Your task to perform on an android device: Add bose soundlink mini to the cart on bestbuy, then select checkout. Image 0: 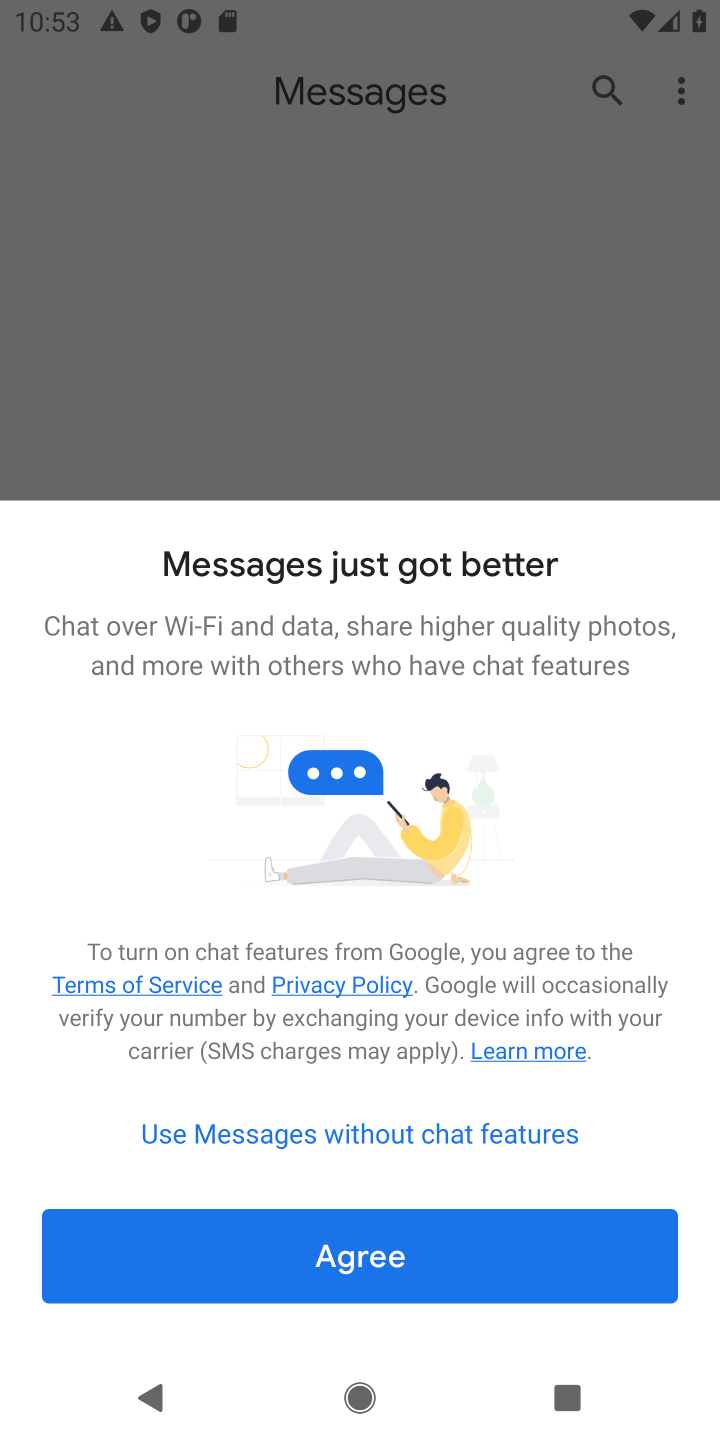
Step 0: press home button
Your task to perform on an android device: Add bose soundlink mini to the cart on bestbuy, then select checkout. Image 1: 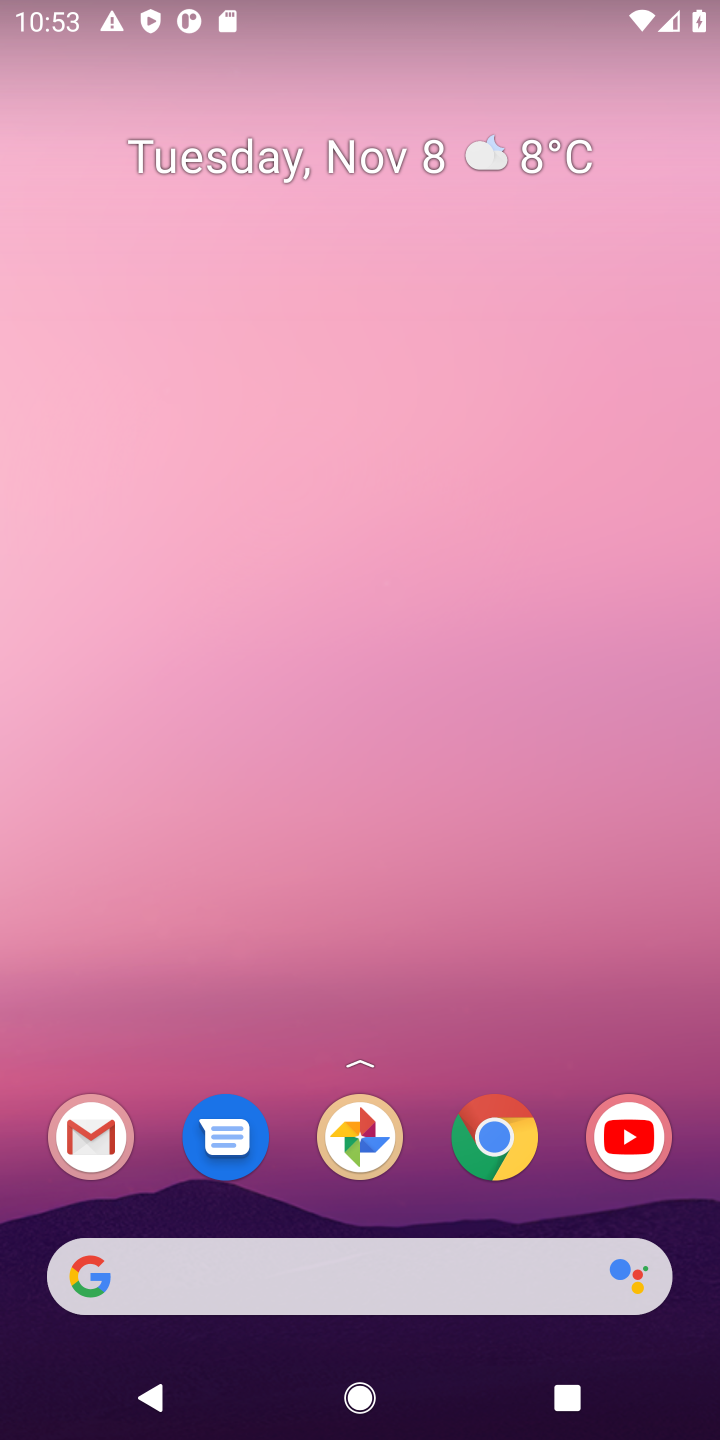
Step 1: click (498, 1123)
Your task to perform on an android device: Add bose soundlink mini to the cart on bestbuy, then select checkout. Image 2: 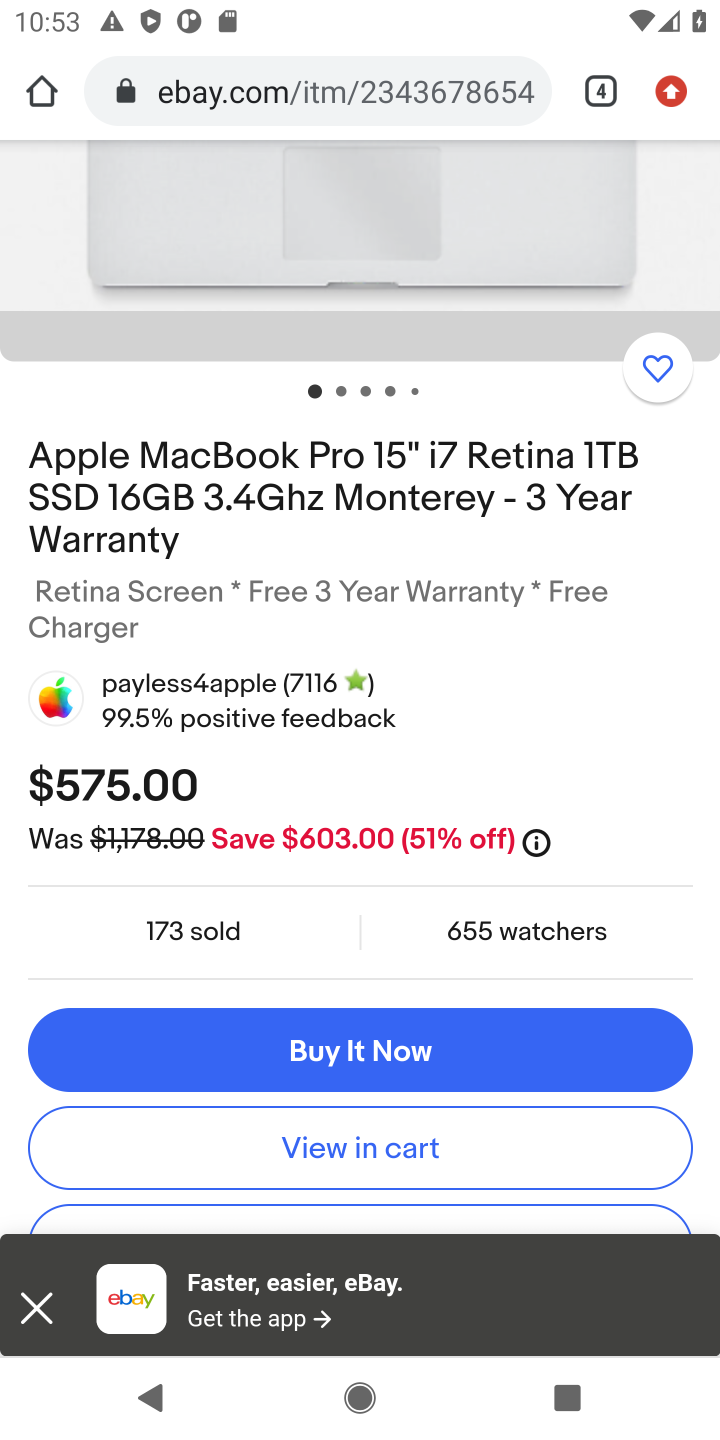
Step 2: click (600, 87)
Your task to perform on an android device: Add bose soundlink mini to the cart on bestbuy, then select checkout. Image 3: 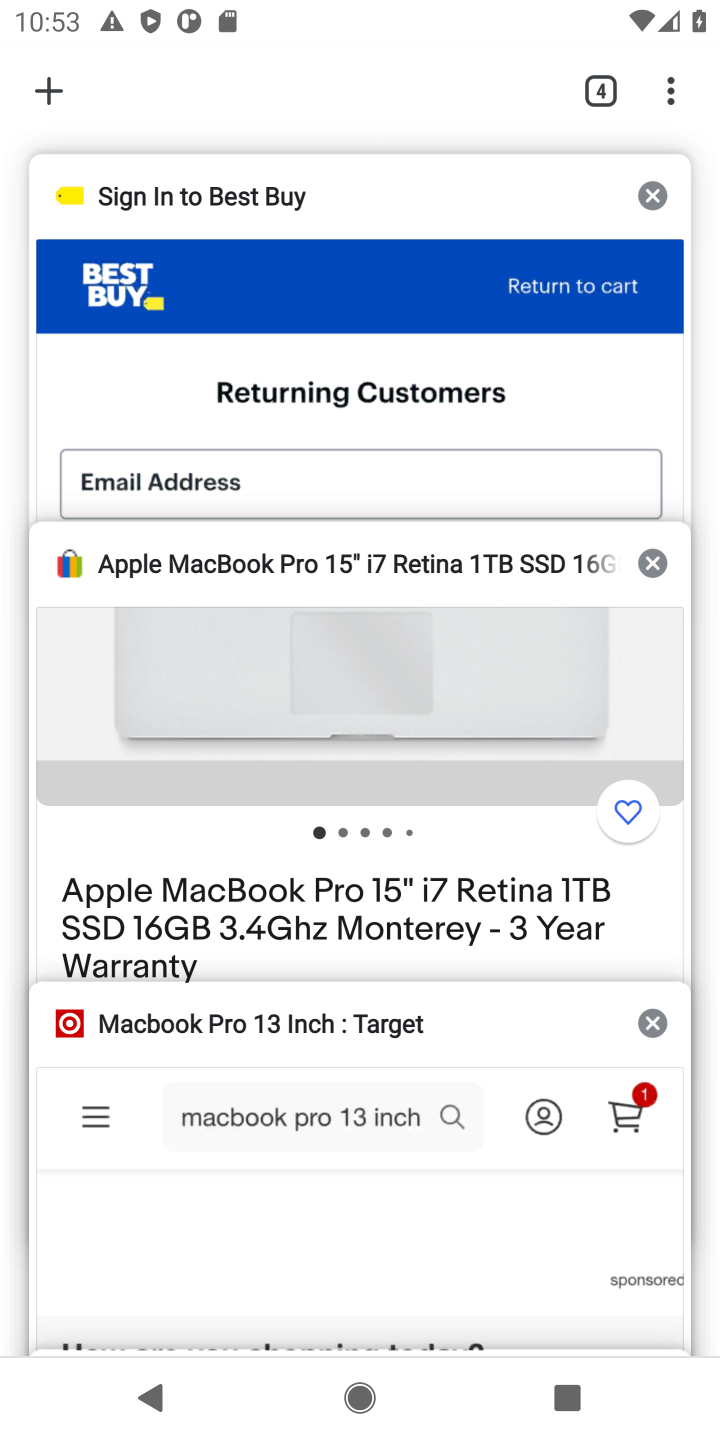
Step 3: click (224, 312)
Your task to perform on an android device: Add bose soundlink mini to the cart on bestbuy, then select checkout. Image 4: 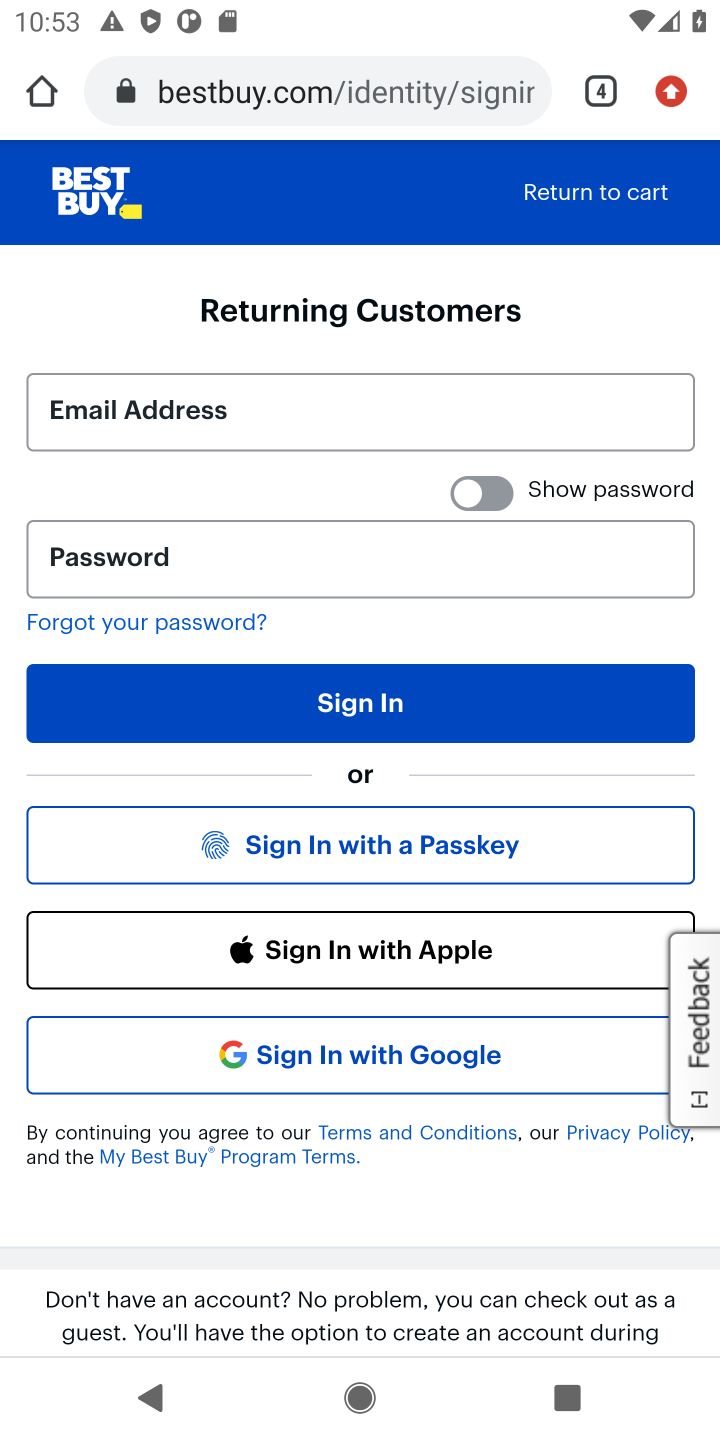
Step 4: click (550, 184)
Your task to perform on an android device: Add bose soundlink mini to the cart on bestbuy, then select checkout. Image 5: 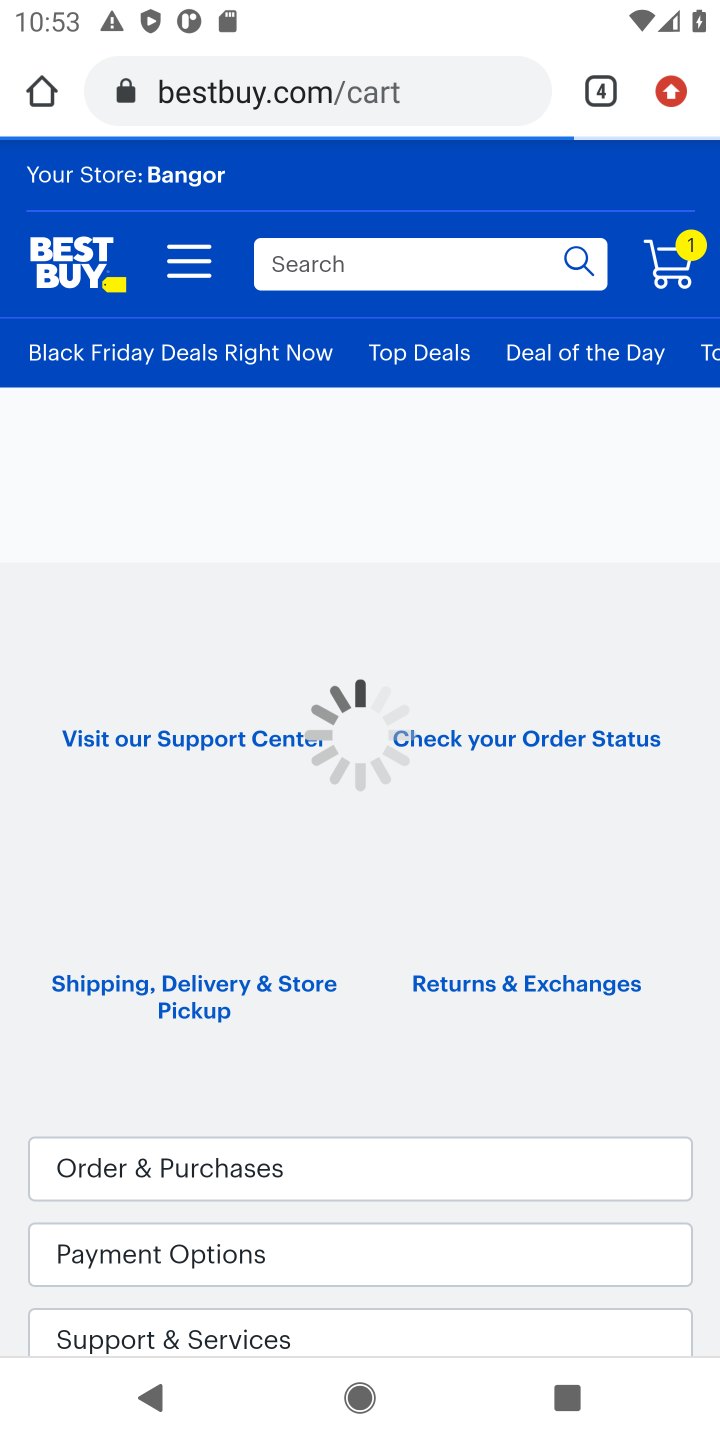
Step 5: click (358, 264)
Your task to perform on an android device: Add bose soundlink mini to the cart on bestbuy, then select checkout. Image 6: 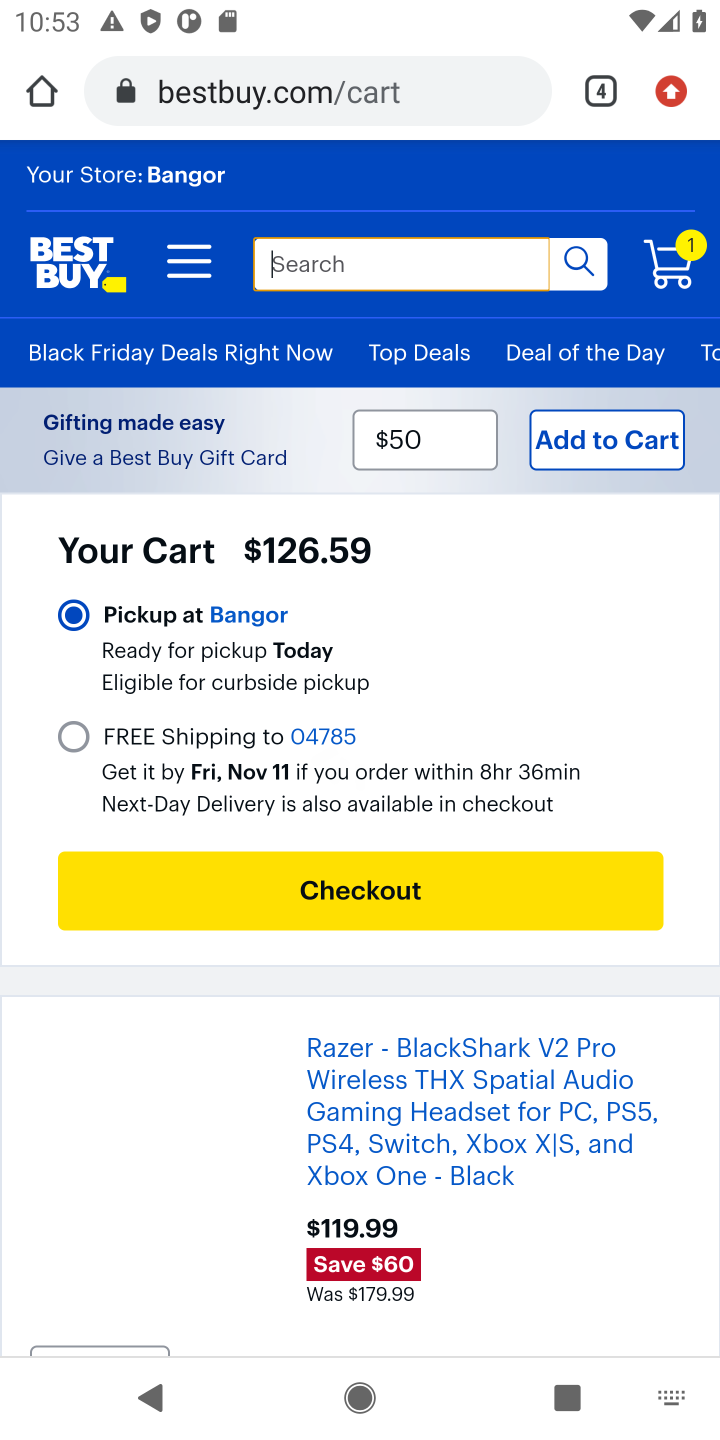
Step 6: type "bose soundlink mini "
Your task to perform on an android device: Add bose soundlink mini to the cart on bestbuy, then select checkout. Image 7: 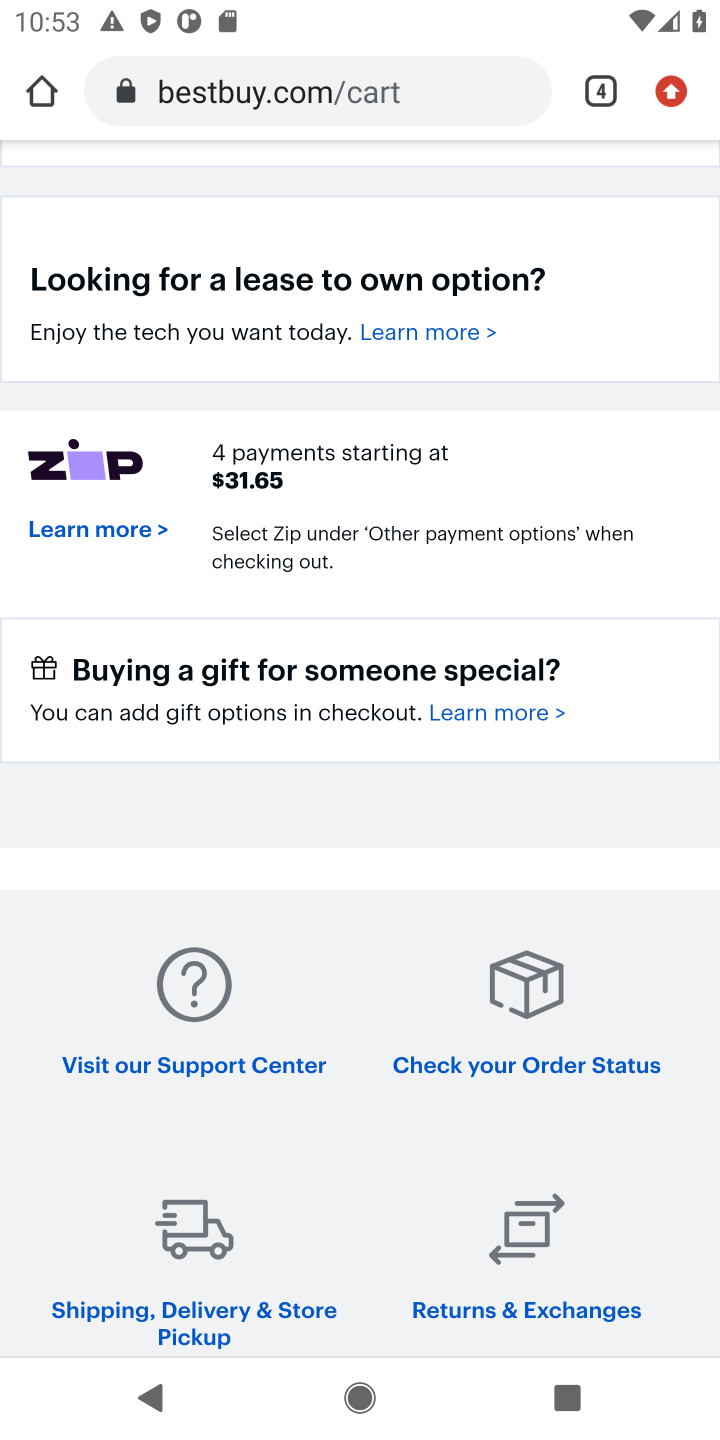
Step 7: click (413, 199)
Your task to perform on an android device: Add bose soundlink mini to the cart on bestbuy, then select checkout. Image 8: 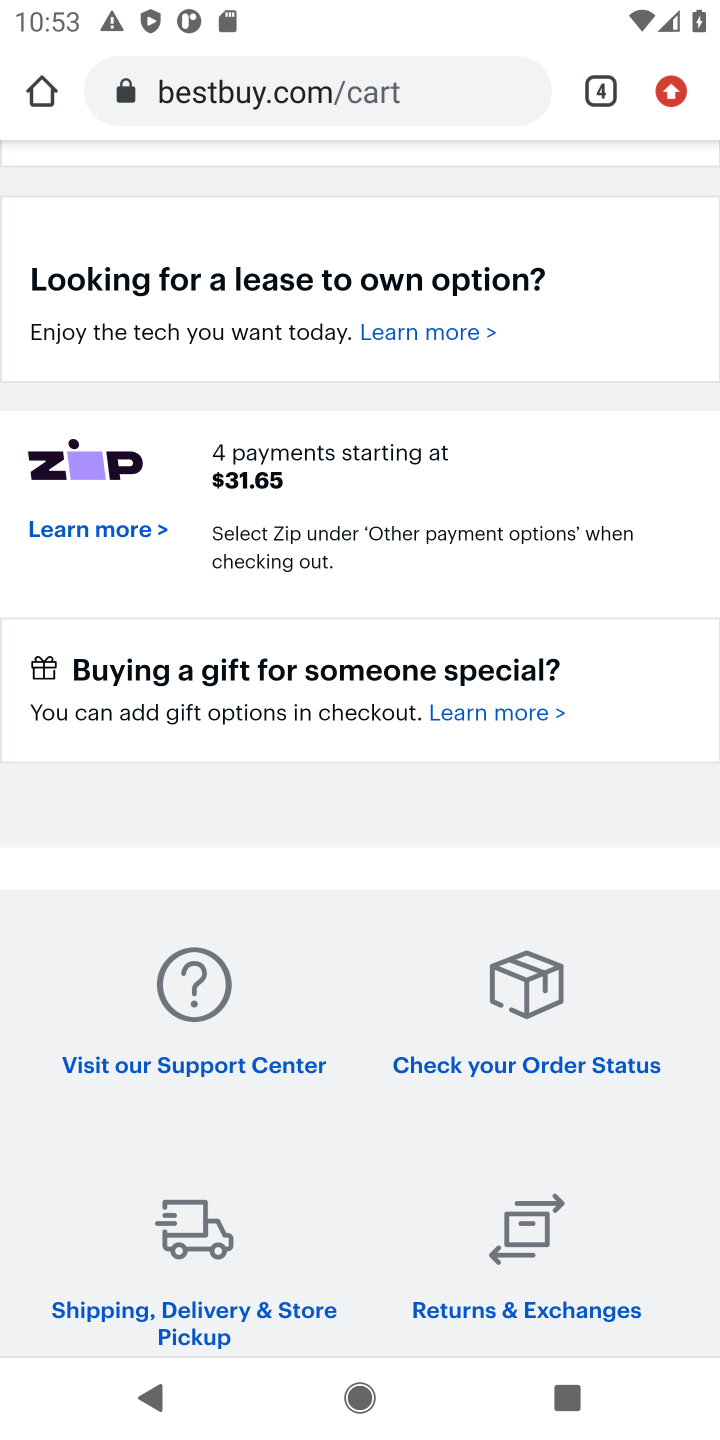
Step 8: drag from (458, 208) to (410, 919)
Your task to perform on an android device: Add bose soundlink mini to the cart on bestbuy, then select checkout. Image 9: 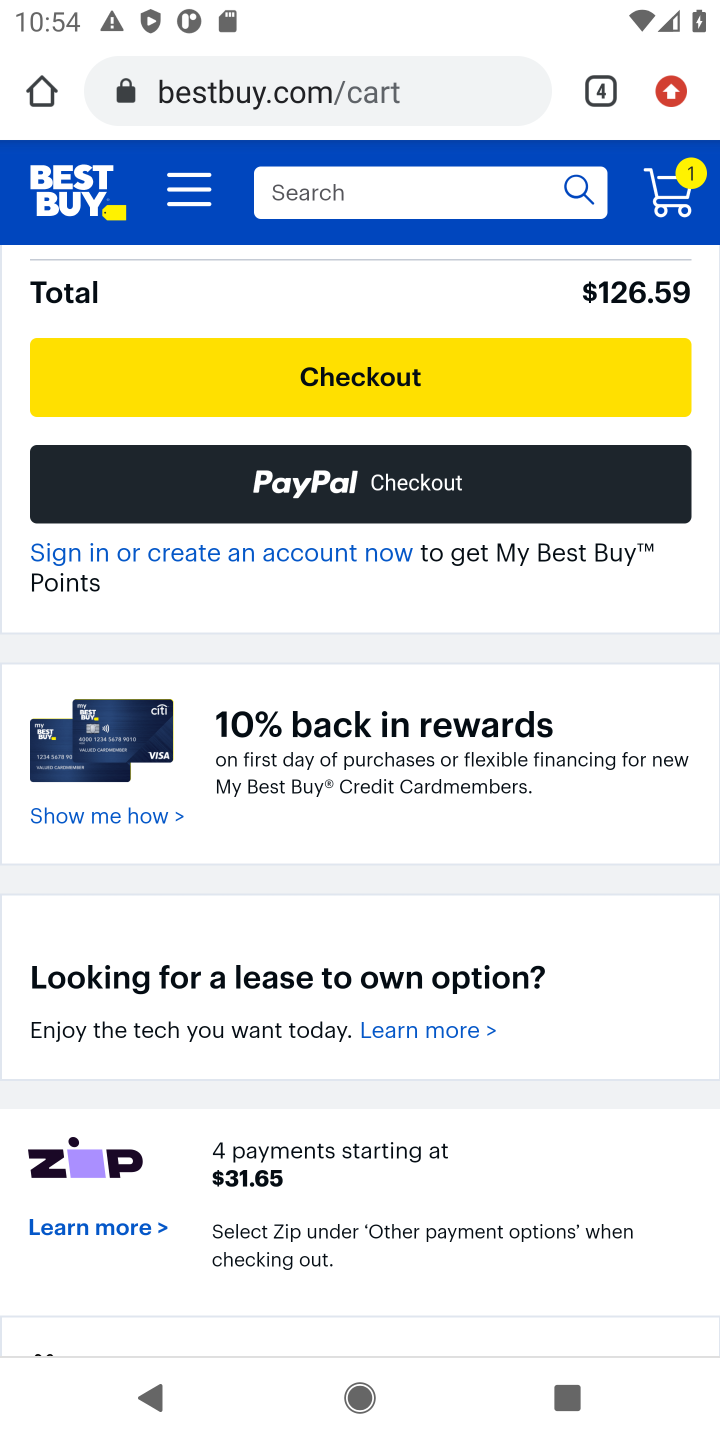
Step 9: click (305, 203)
Your task to perform on an android device: Add bose soundlink mini to the cart on bestbuy, then select checkout. Image 10: 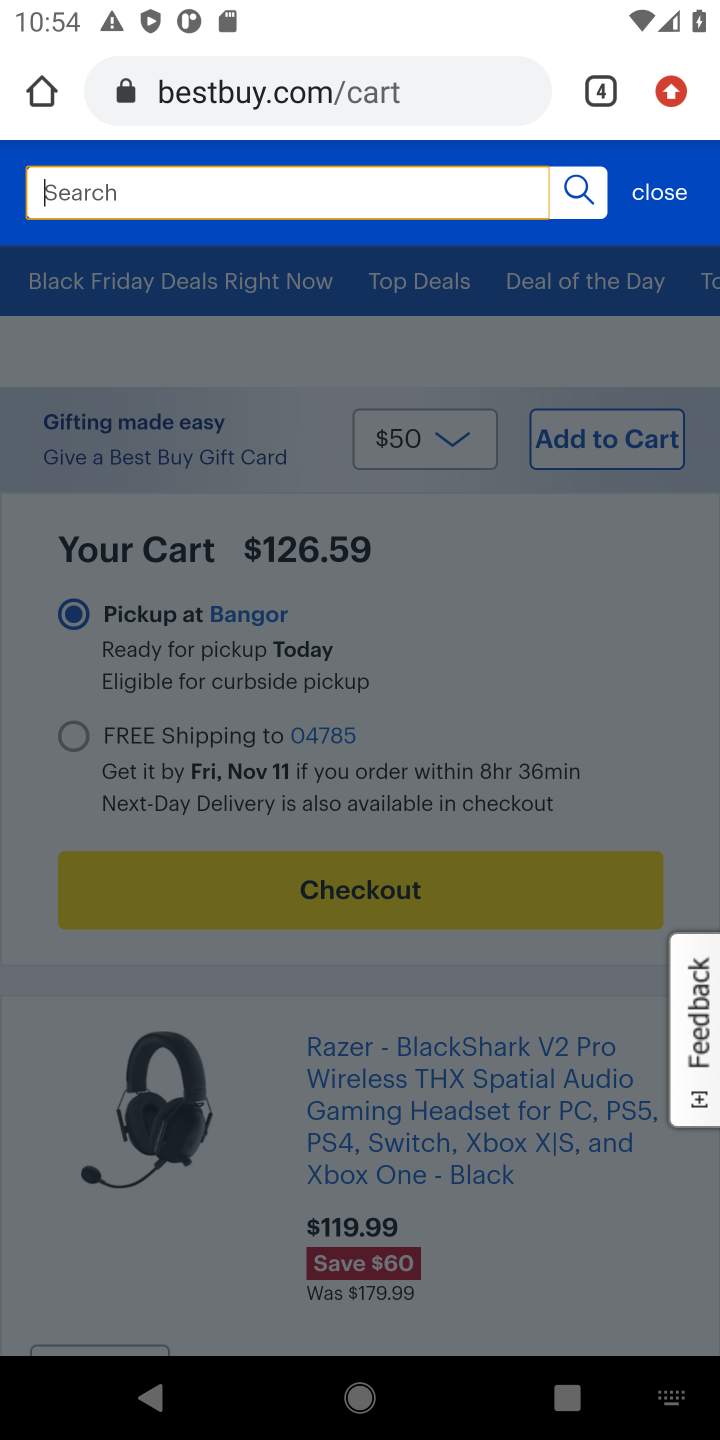
Step 10: type "bose soundlink mini "
Your task to perform on an android device: Add bose soundlink mini to the cart on bestbuy, then select checkout. Image 11: 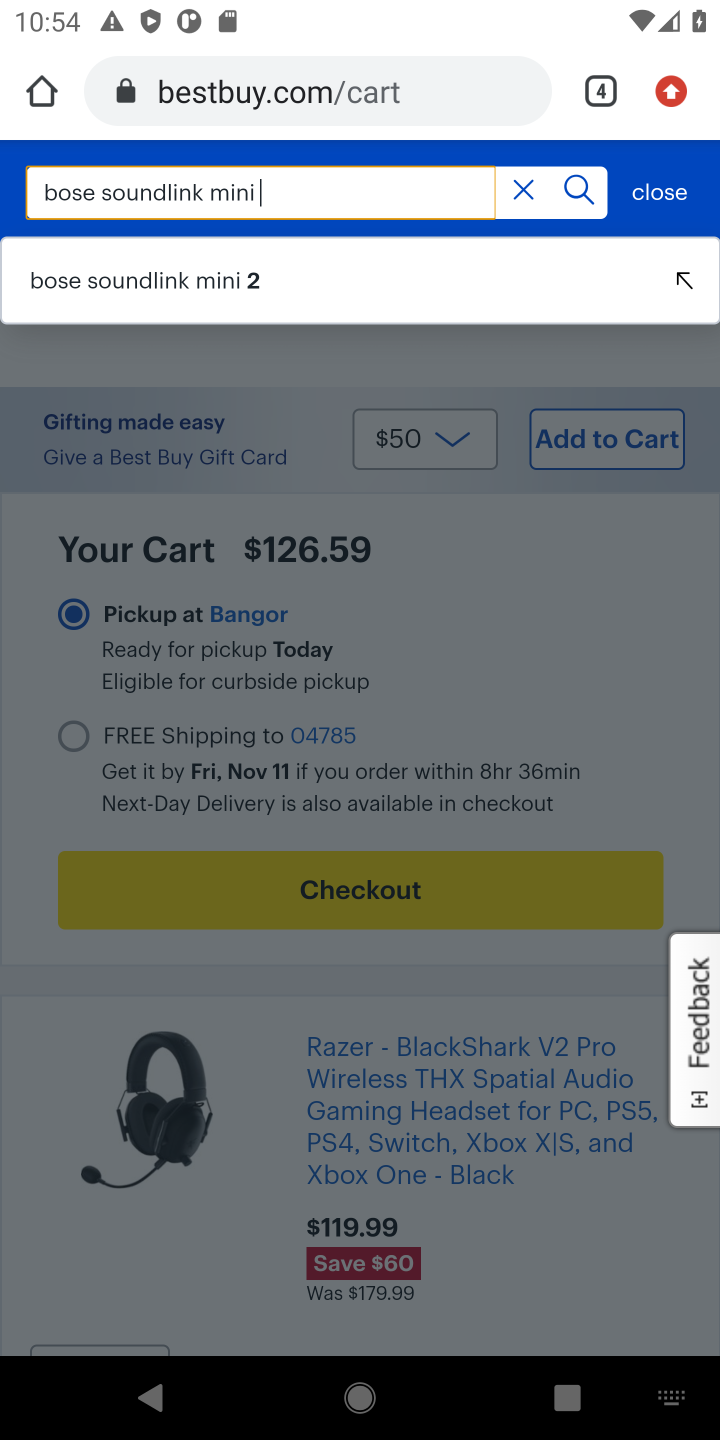
Step 11: click (159, 287)
Your task to perform on an android device: Add bose soundlink mini to the cart on bestbuy, then select checkout. Image 12: 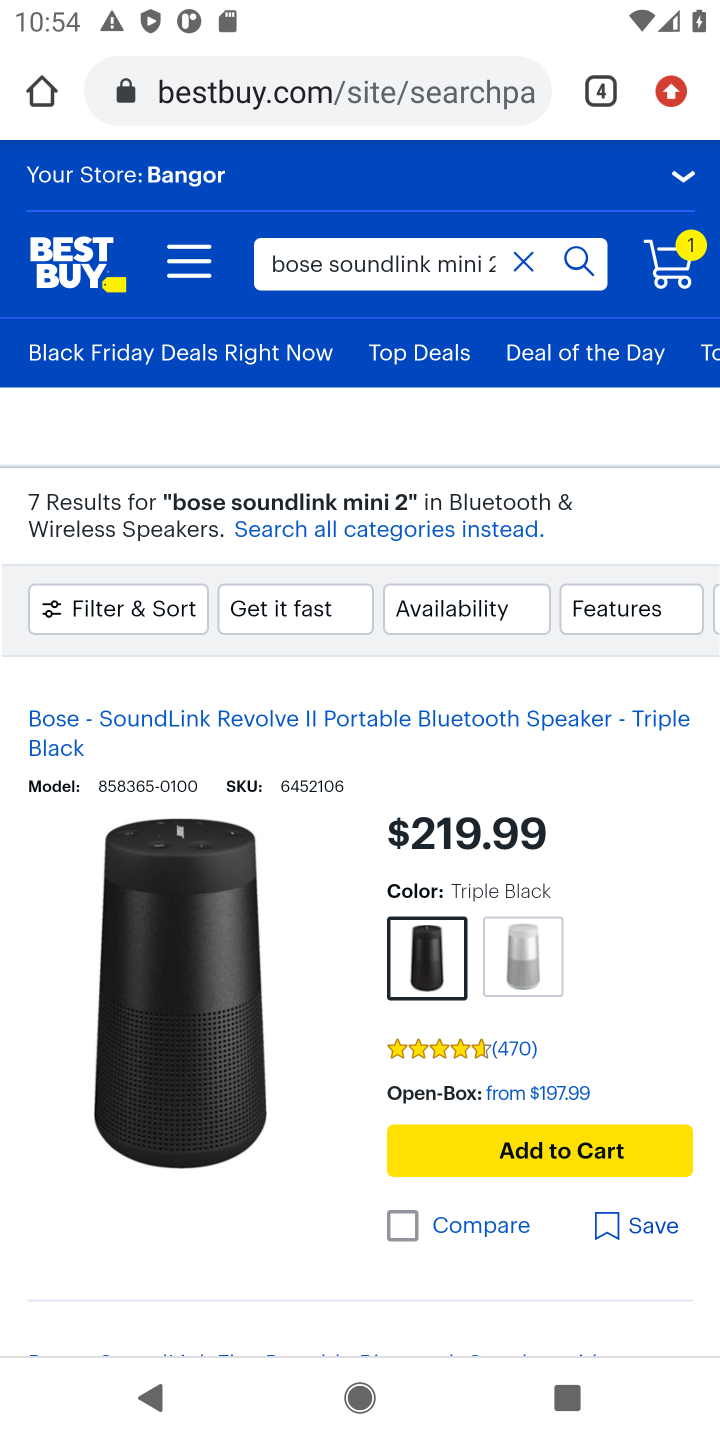
Step 12: click (513, 1221)
Your task to perform on an android device: Add bose soundlink mini to the cart on bestbuy, then select checkout. Image 13: 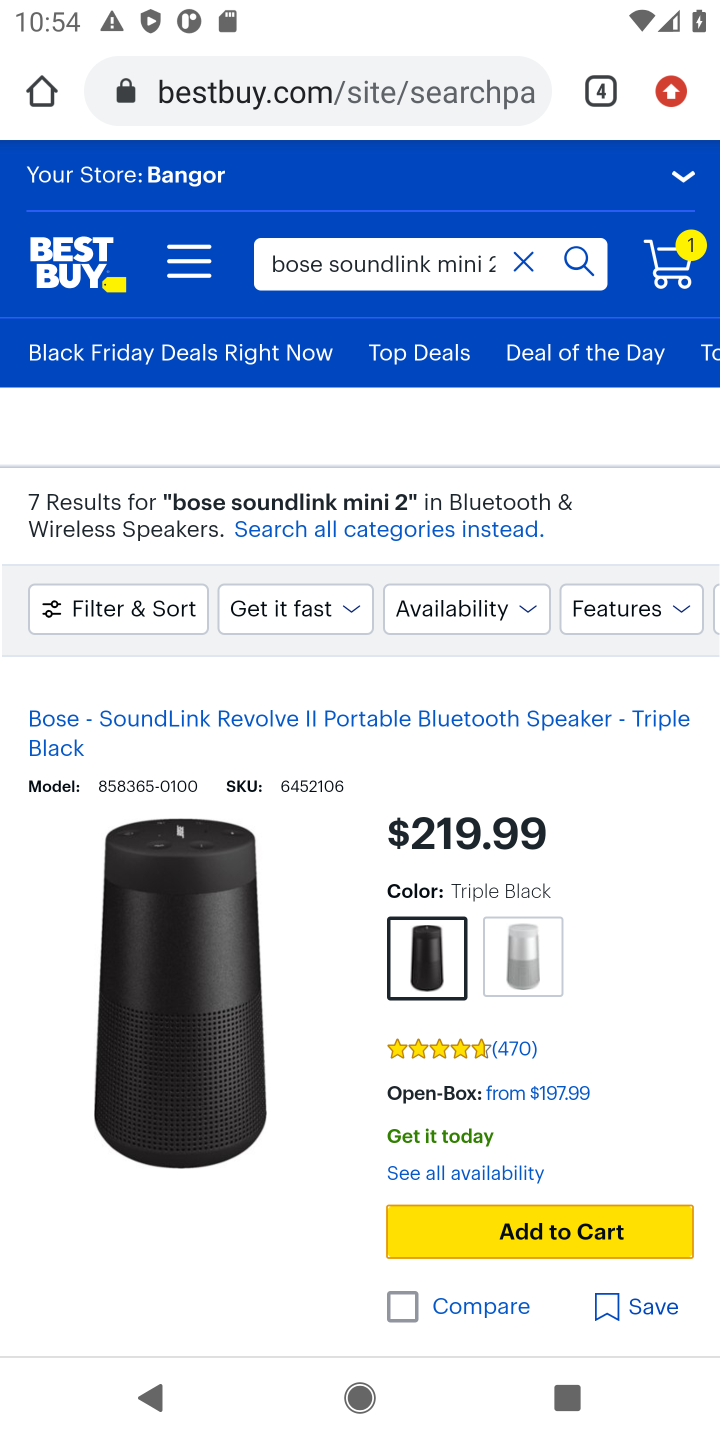
Step 13: click (529, 1228)
Your task to perform on an android device: Add bose soundlink mini to the cart on bestbuy, then select checkout. Image 14: 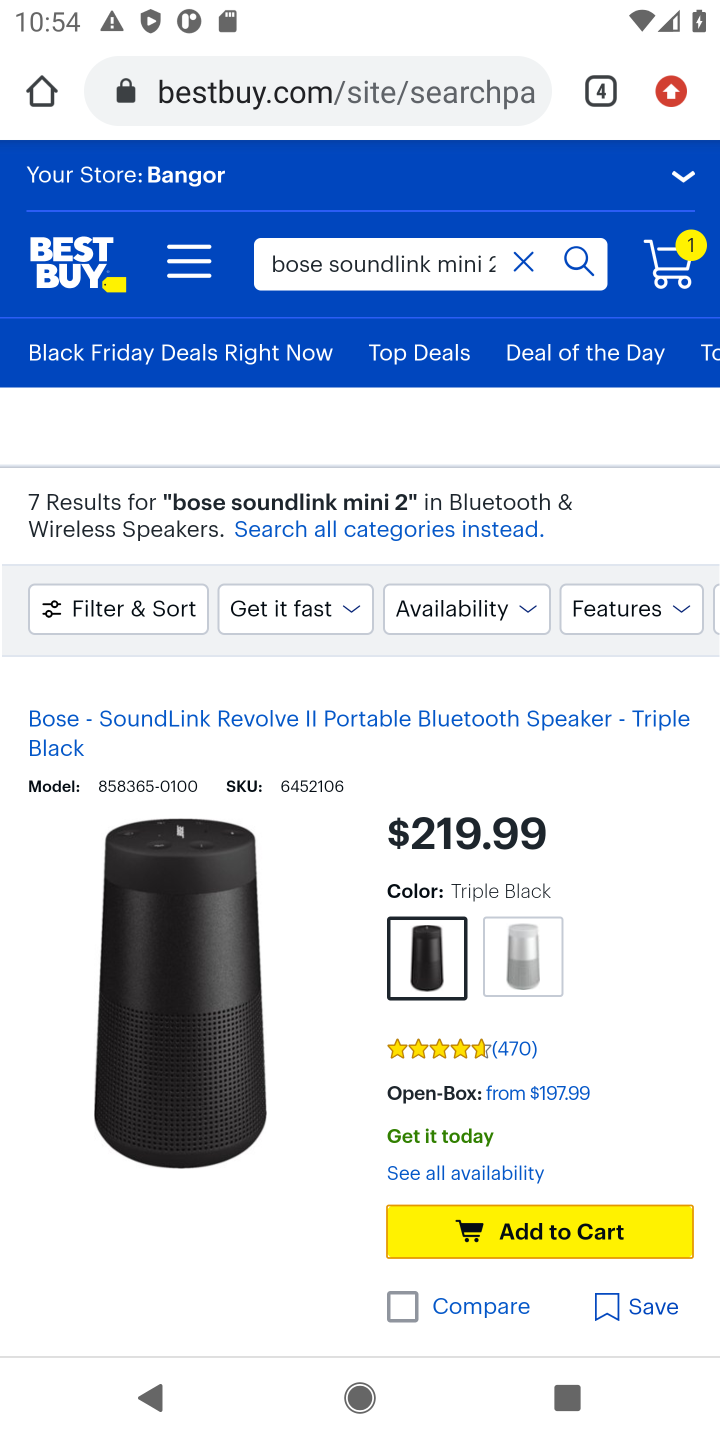
Step 14: click (672, 262)
Your task to perform on an android device: Add bose soundlink mini to the cart on bestbuy, then select checkout. Image 15: 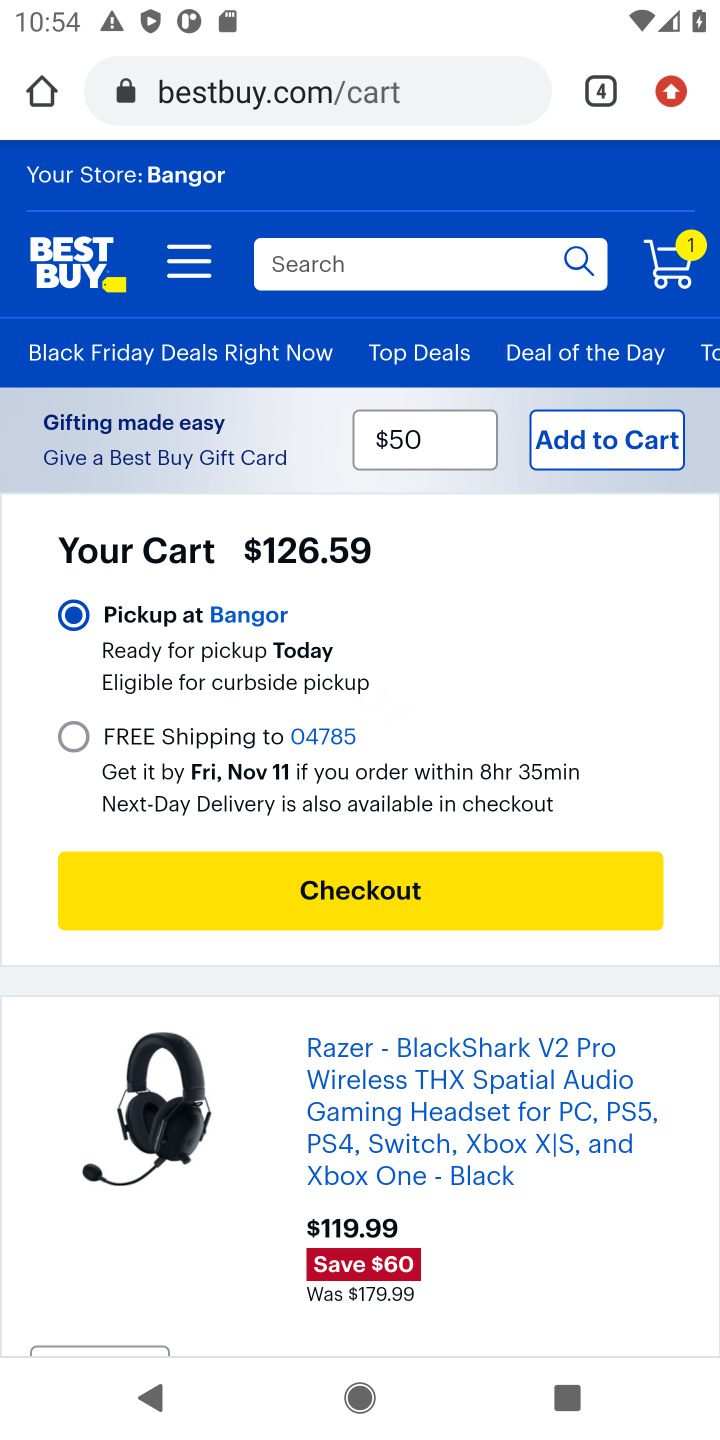
Step 15: click (451, 894)
Your task to perform on an android device: Add bose soundlink mini to the cart on bestbuy, then select checkout. Image 16: 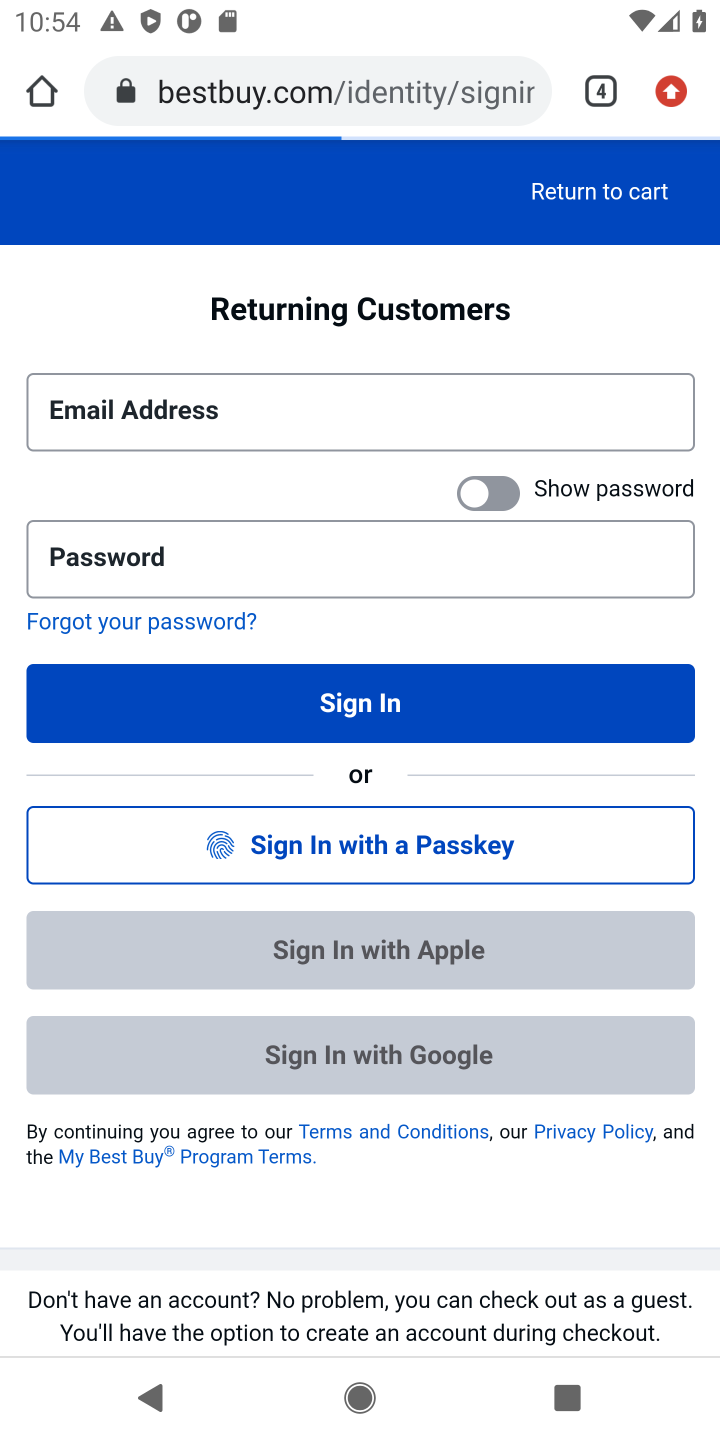
Step 16: task complete